Your task to perform on an android device: allow notifications from all sites in the chrome app Image 0: 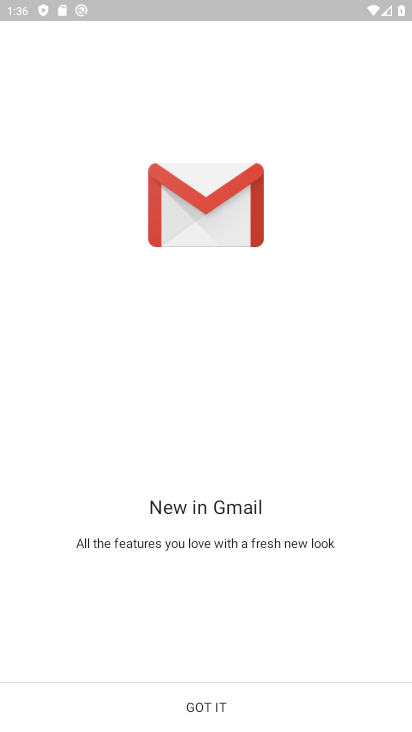
Step 0: press home button
Your task to perform on an android device: allow notifications from all sites in the chrome app Image 1: 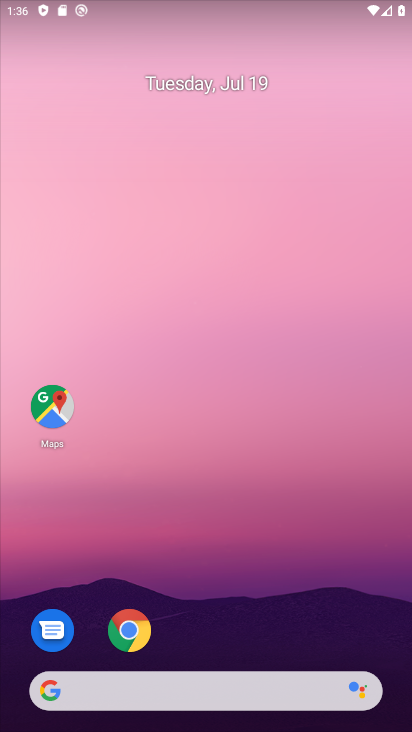
Step 1: drag from (234, 656) to (233, 82)
Your task to perform on an android device: allow notifications from all sites in the chrome app Image 2: 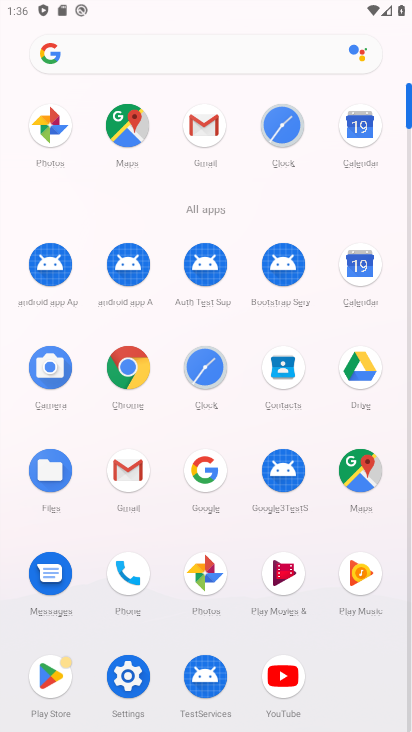
Step 2: click (129, 363)
Your task to perform on an android device: allow notifications from all sites in the chrome app Image 3: 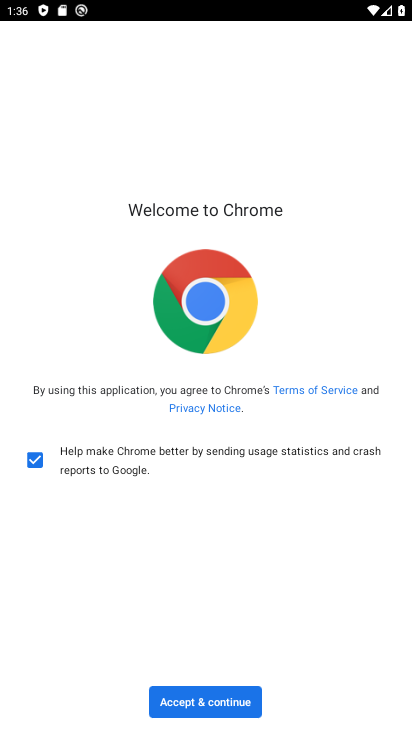
Step 3: click (219, 696)
Your task to perform on an android device: allow notifications from all sites in the chrome app Image 4: 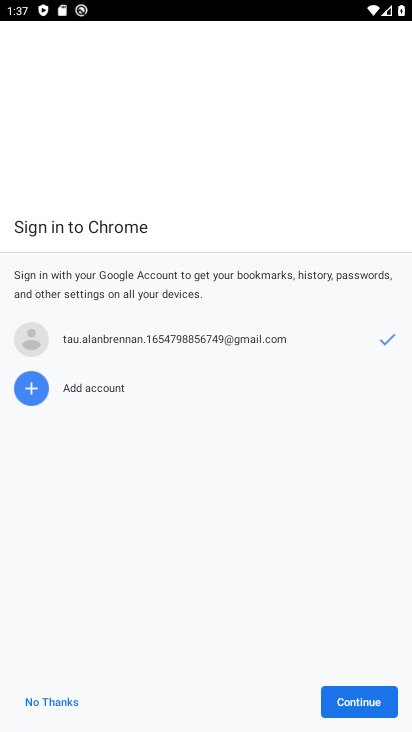
Step 4: click (354, 704)
Your task to perform on an android device: allow notifications from all sites in the chrome app Image 5: 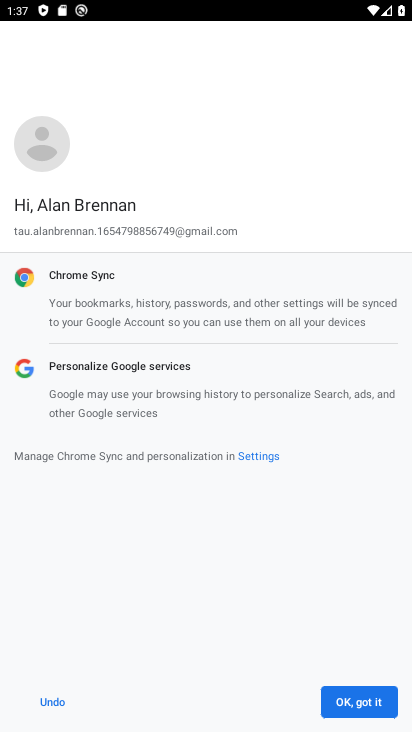
Step 5: click (371, 705)
Your task to perform on an android device: allow notifications from all sites in the chrome app Image 6: 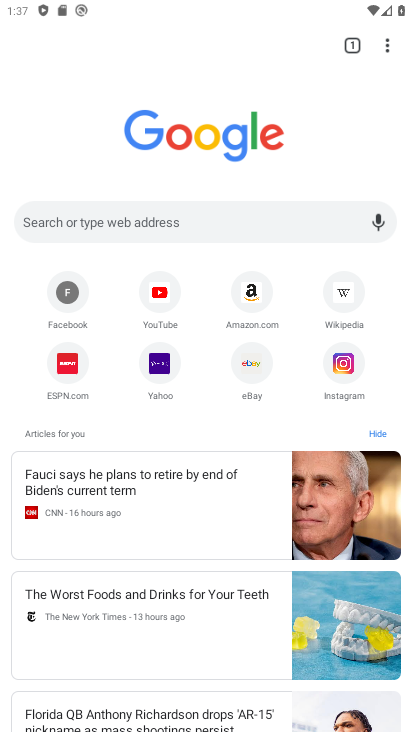
Step 6: click (387, 41)
Your task to perform on an android device: allow notifications from all sites in the chrome app Image 7: 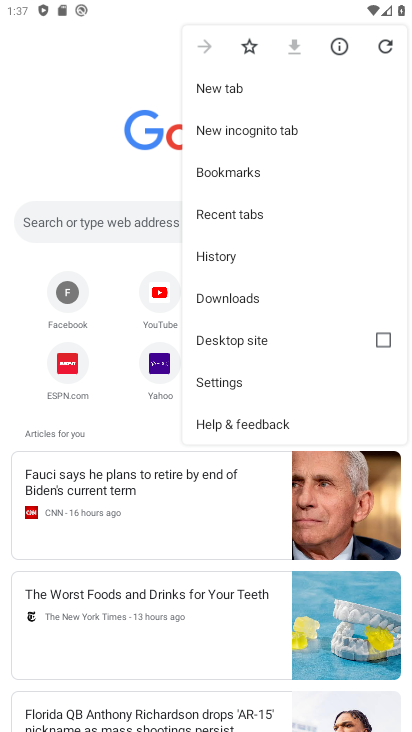
Step 7: click (245, 382)
Your task to perform on an android device: allow notifications from all sites in the chrome app Image 8: 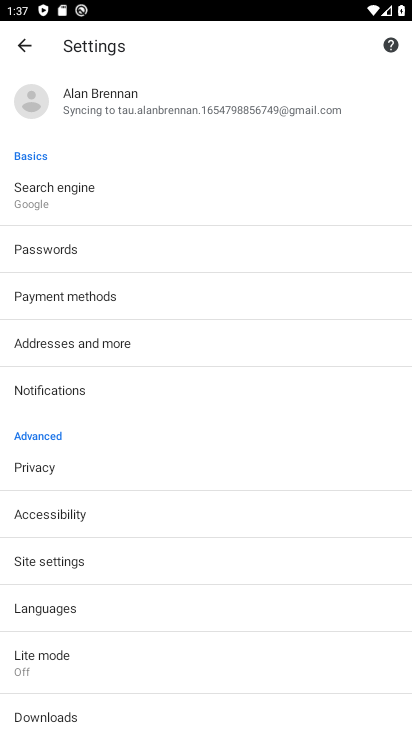
Step 8: click (95, 555)
Your task to perform on an android device: allow notifications from all sites in the chrome app Image 9: 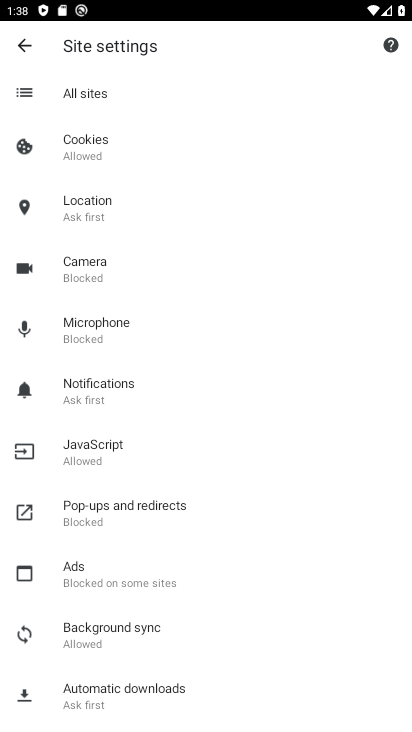
Step 9: click (122, 89)
Your task to perform on an android device: allow notifications from all sites in the chrome app Image 10: 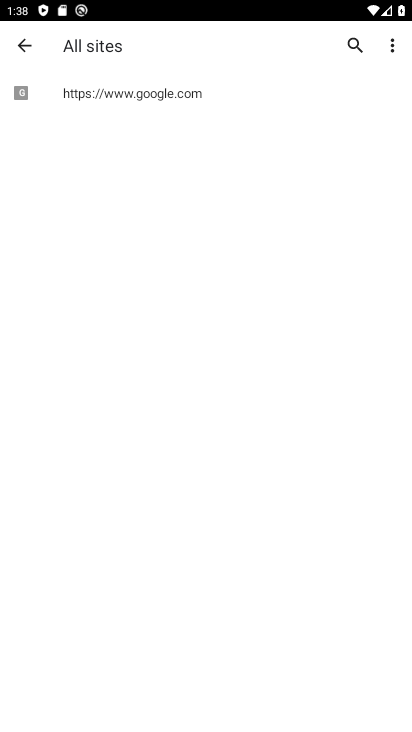
Step 10: click (155, 93)
Your task to perform on an android device: allow notifications from all sites in the chrome app Image 11: 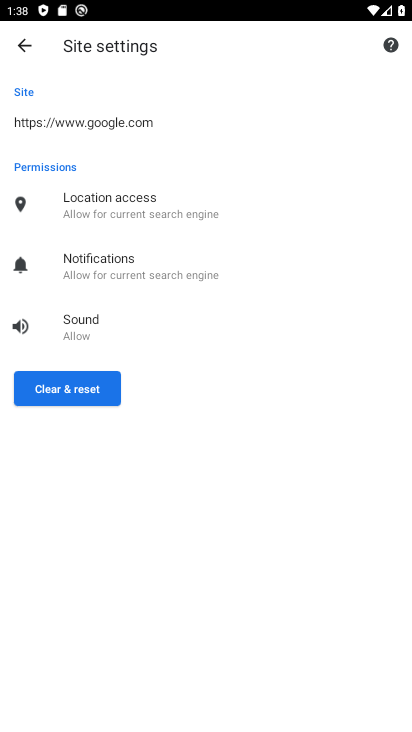
Step 11: task complete